Your task to perform on an android device: Search for hotels in Denver Image 0: 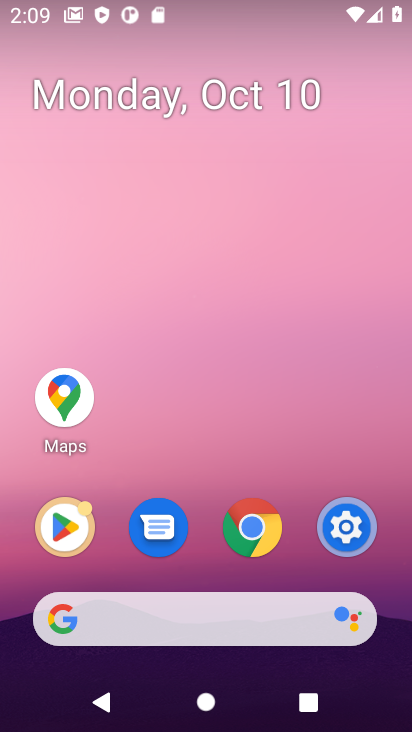
Step 0: press home button
Your task to perform on an android device: Search for hotels in Denver Image 1: 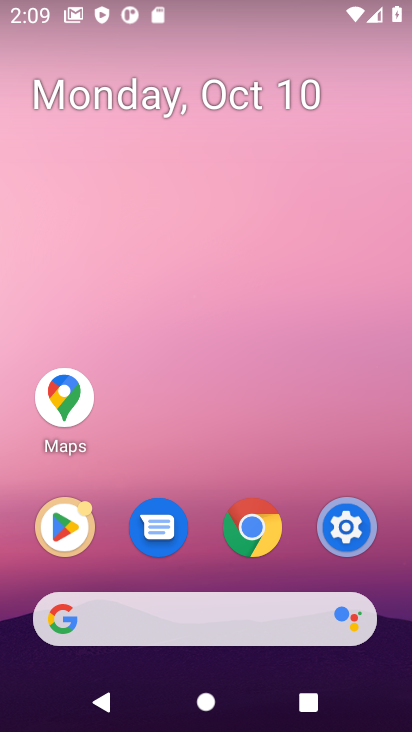
Step 1: click (230, 608)
Your task to perform on an android device: Search for hotels in Denver Image 2: 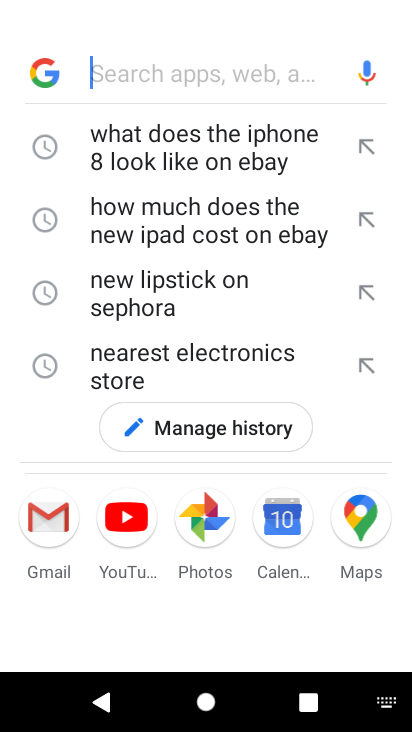
Step 2: type "hotels in Denver"
Your task to perform on an android device: Search for hotels in Denver Image 3: 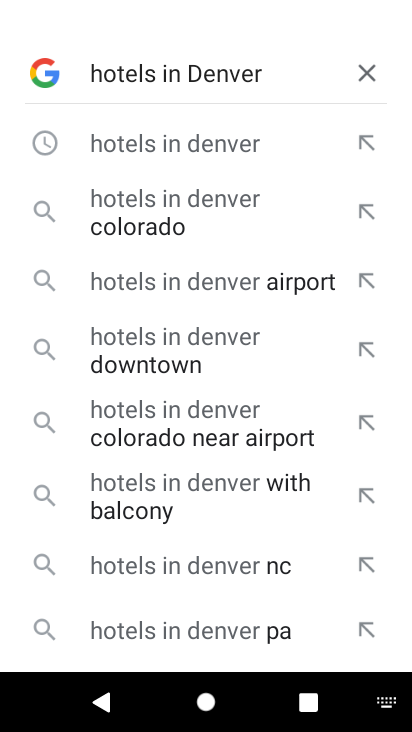
Step 3: press enter
Your task to perform on an android device: Search for hotels in Denver Image 4: 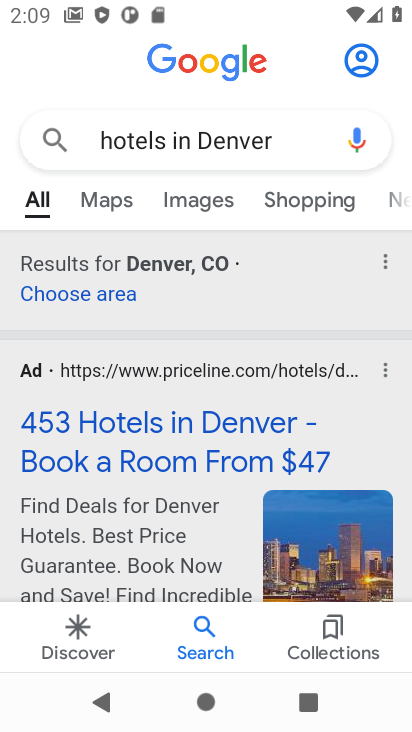
Step 4: drag from (348, 439) to (361, 252)
Your task to perform on an android device: Search for hotels in Denver Image 5: 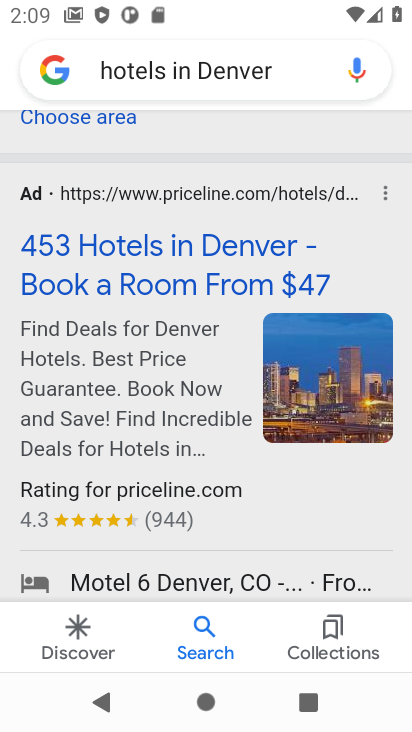
Step 5: click (134, 278)
Your task to perform on an android device: Search for hotels in Denver Image 6: 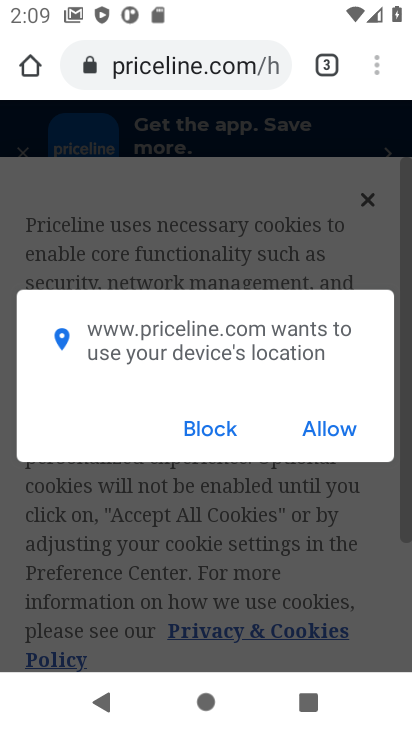
Step 6: click (195, 439)
Your task to perform on an android device: Search for hotels in Denver Image 7: 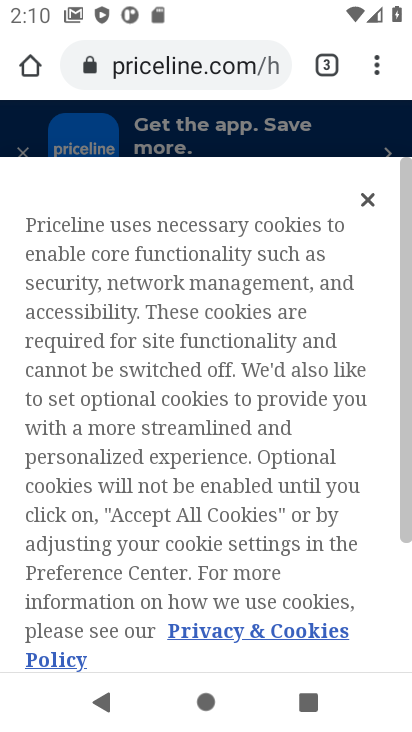
Step 7: click (370, 200)
Your task to perform on an android device: Search for hotels in Denver Image 8: 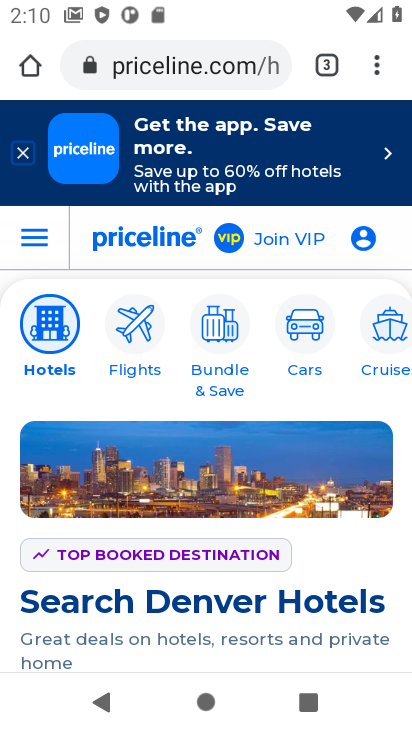
Step 8: task complete